Your task to perform on an android device: Show me the alarms in the clock app Image 0: 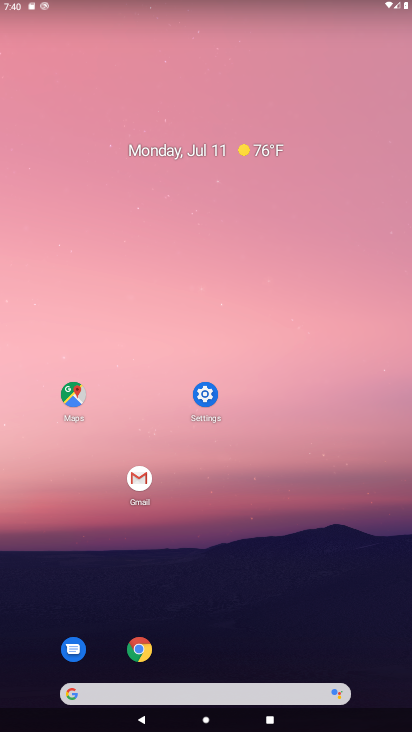
Step 0: drag from (394, 700) to (364, 64)
Your task to perform on an android device: Show me the alarms in the clock app Image 1: 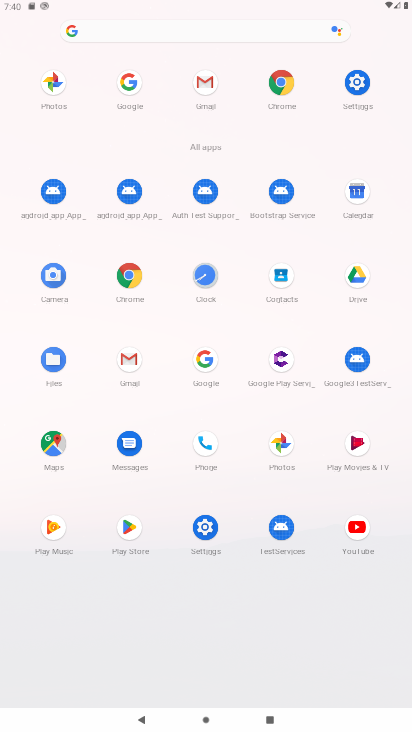
Step 1: click (197, 280)
Your task to perform on an android device: Show me the alarms in the clock app Image 2: 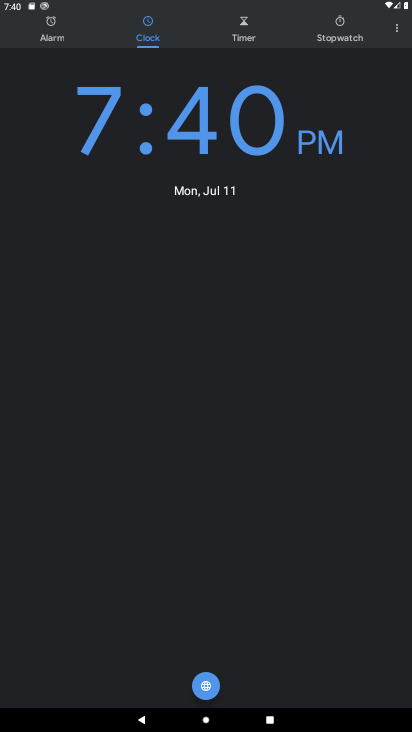
Step 2: click (50, 32)
Your task to perform on an android device: Show me the alarms in the clock app Image 3: 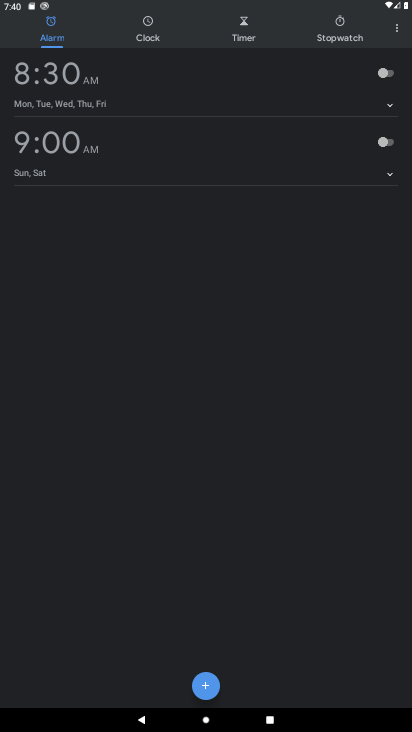
Step 3: task complete